Your task to perform on an android device: toggle notification dots Image 0: 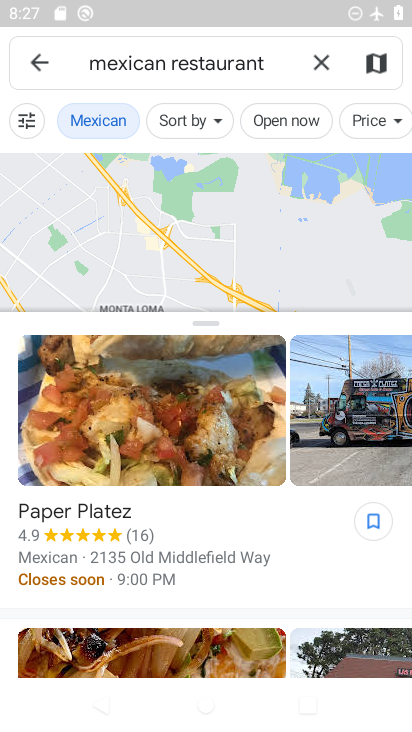
Step 0: press home button
Your task to perform on an android device: toggle notification dots Image 1: 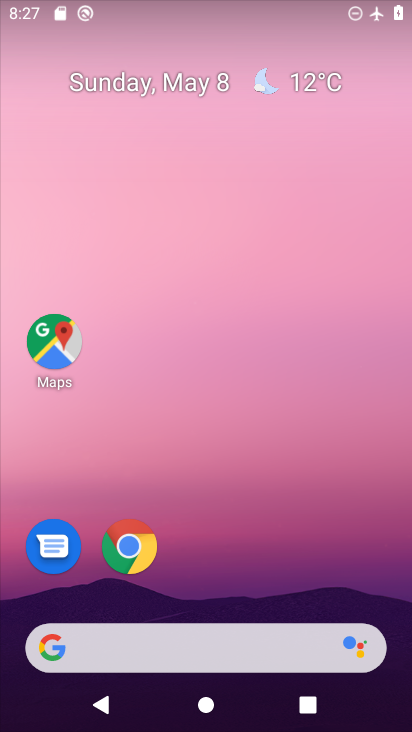
Step 1: drag from (262, 529) to (278, 0)
Your task to perform on an android device: toggle notification dots Image 2: 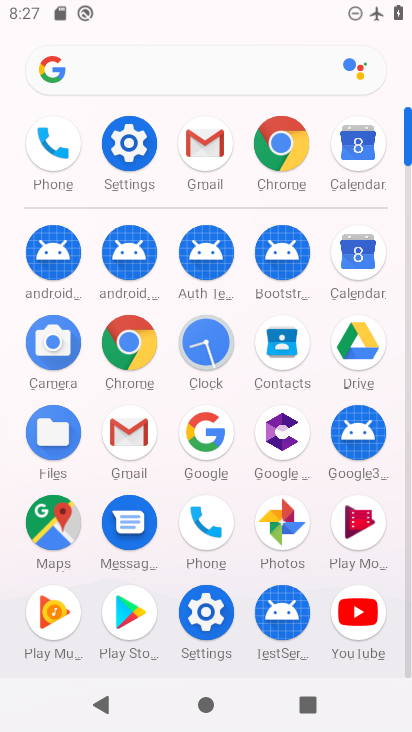
Step 2: click (135, 186)
Your task to perform on an android device: toggle notification dots Image 3: 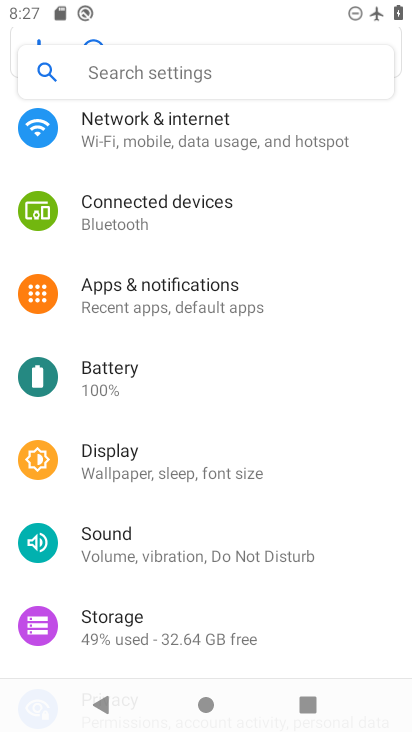
Step 3: click (186, 280)
Your task to perform on an android device: toggle notification dots Image 4: 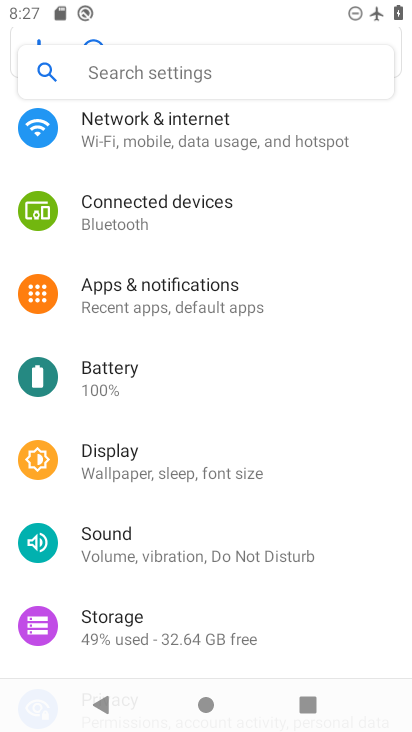
Step 4: click (189, 285)
Your task to perform on an android device: toggle notification dots Image 5: 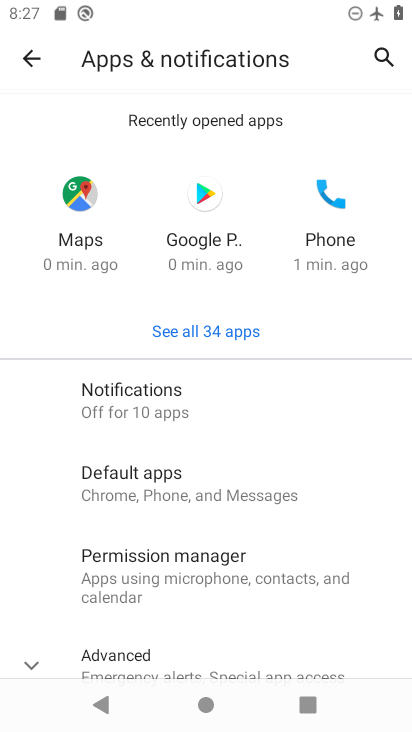
Step 5: click (166, 409)
Your task to perform on an android device: toggle notification dots Image 6: 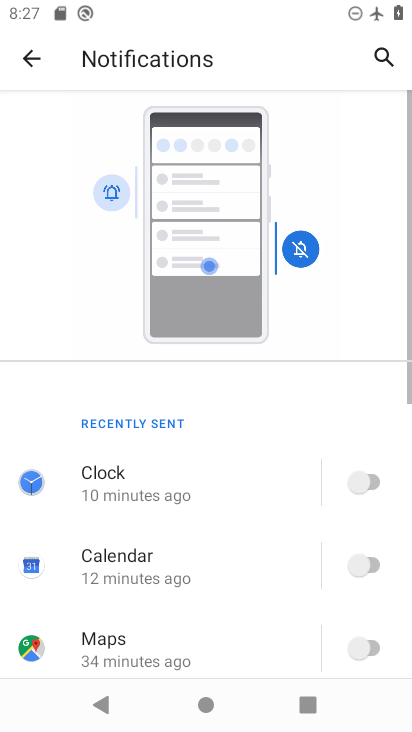
Step 6: drag from (170, 593) to (222, 9)
Your task to perform on an android device: toggle notification dots Image 7: 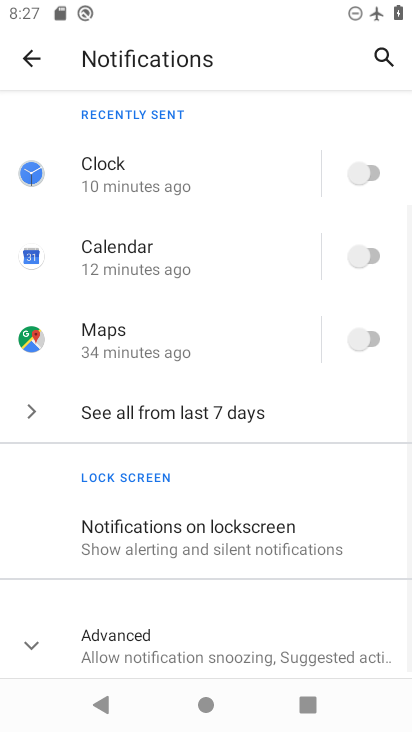
Step 7: click (29, 625)
Your task to perform on an android device: toggle notification dots Image 8: 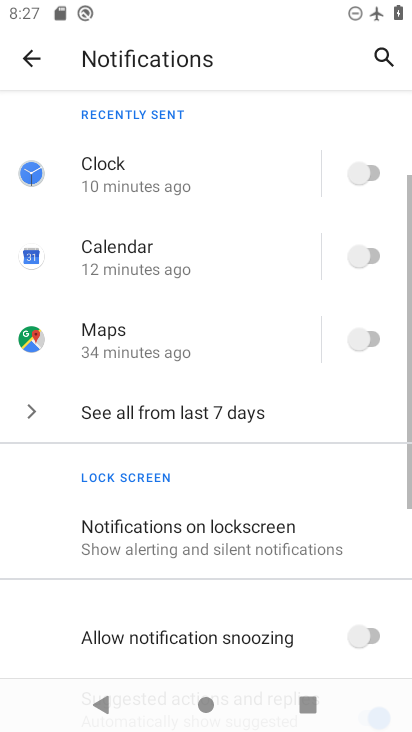
Step 8: drag from (226, 585) to (306, 162)
Your task to perform on an android device: toggle notification dots Image 9: 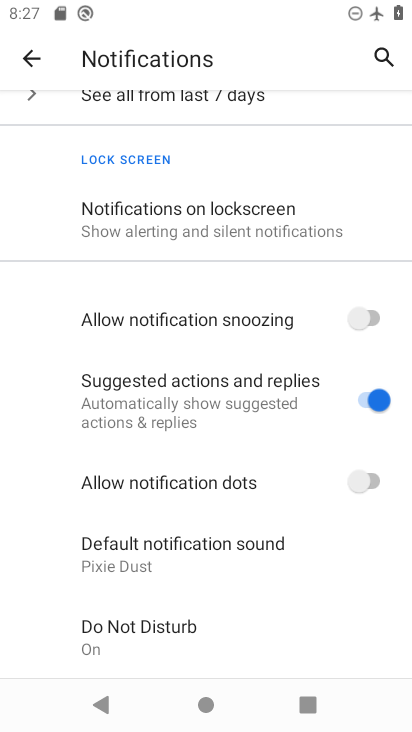
Step 9: click (374, 476)
Your task to perform on an android device: toggle notification dots Image 10: 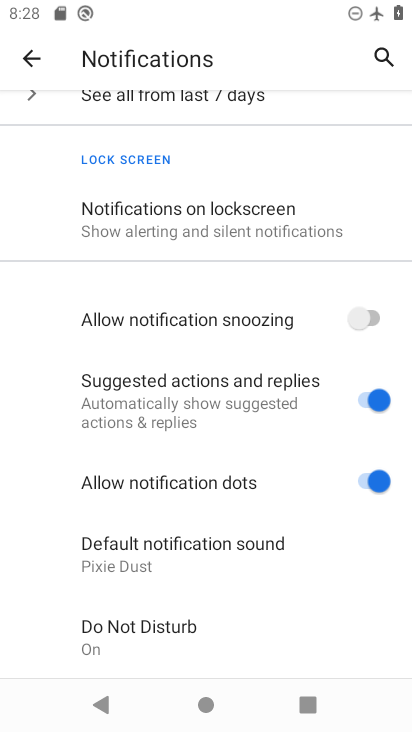
Step 10: task complete